Your task to perform on an android device: Clear the cart on amazon.com. Search for "razer deathadder" on amazon.com, select the first entry, add it to the cart, then select checkout. Image 0: 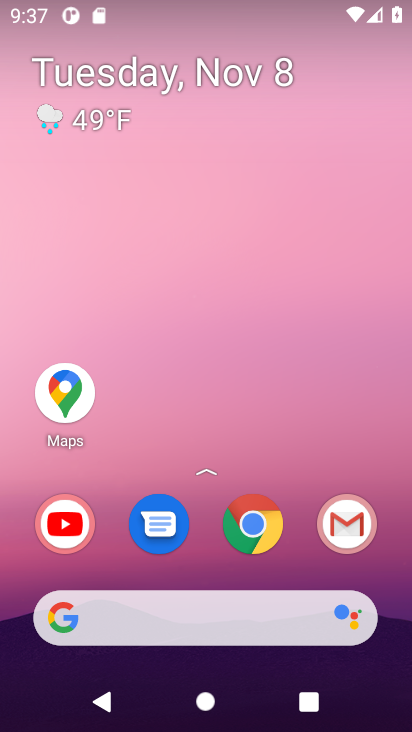
Step 0: click (258, 526)
Your task to perform on an android device: Clear the cart on amazon.com. Search for "razer deathadder" on amazon.com, select the first entry, add it to the cart, then select checkout. Image 1: 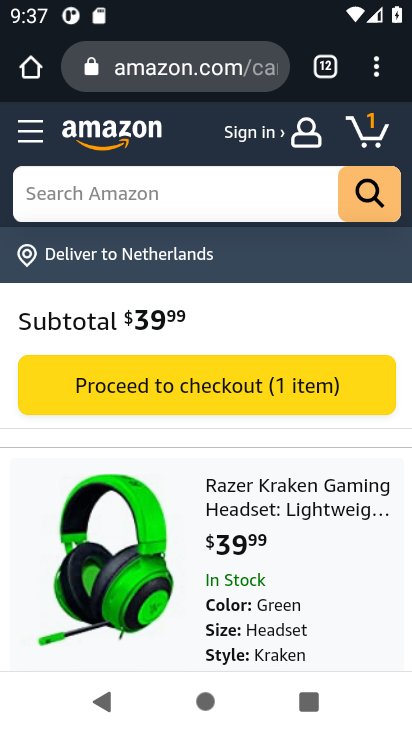
Step 1: click (368, 146)
Your task to perform on an android device: Clear the cart on amazon.com. Search for "razer deathadder" on amazon.com, select the first entry, add it to the cart, then select checkout. Image 2: 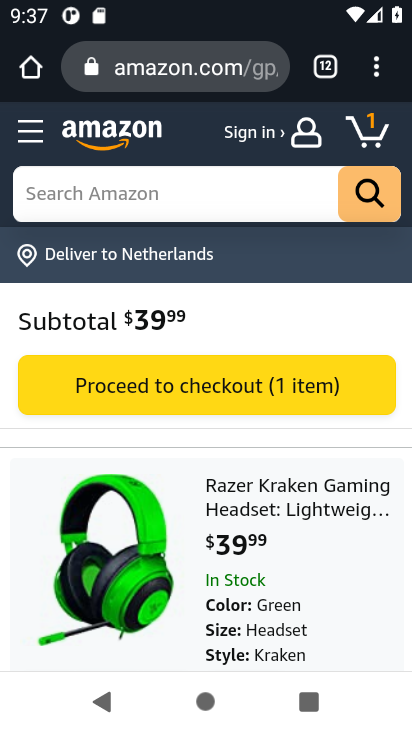
Step 2: drag from (228, 563) to (227, 211)
Your task to perform on an android device: Clear the cart on amazon.com. Search for "razer deathadder" on amazon.com, select the first entry, add it to the cart, then select checkout. Image 3: 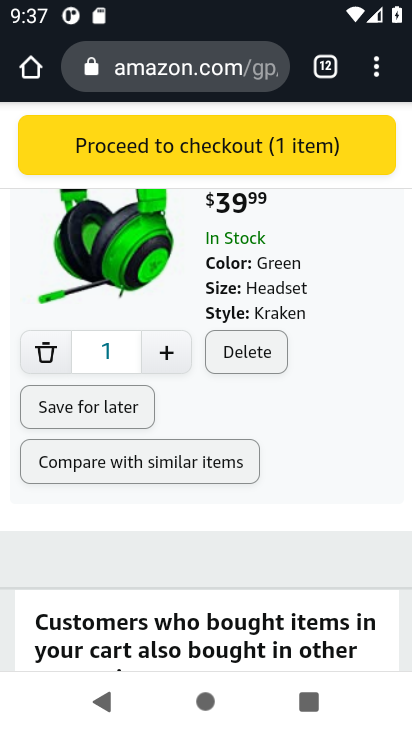
Step 3: click (247, 357)
Your task to perform on an android device: Clear the cart on amazon.com. Search for "razer deathadder" on amazon.com, select the first entry, add it to the cart, then select checkout. Image 4: 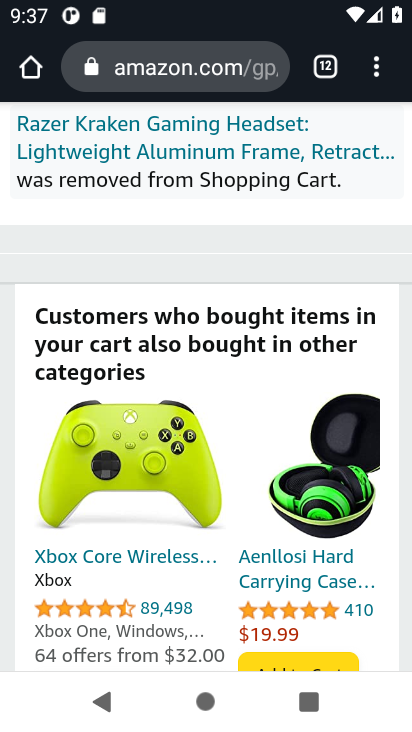
Step 4: drag from (248, 294) to (212, 632)
Your task to perform on an android device: Clear the cart on amazon.com. Search for "razer deathadder" on amazon.com, select the first entry, add it to the cart, then select checkout. Image 5: 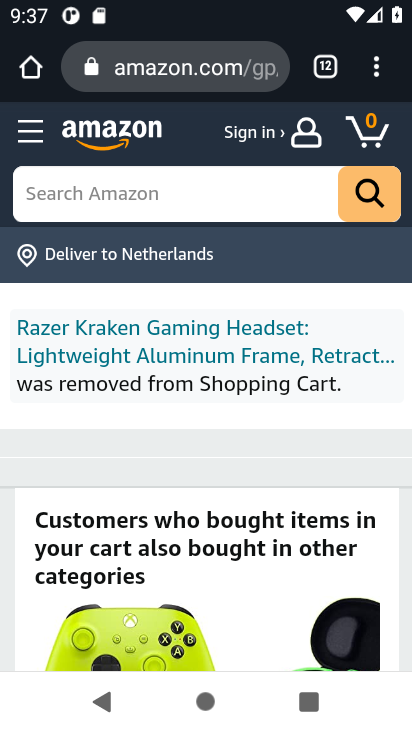
Step 5: click (119, 196)
Your task to perform on an android device: Clear the cart on amazon.com. Search for "razer deathadder" on amazon.com, select the first entry, add it to the cart, then select checkout. Image 6: 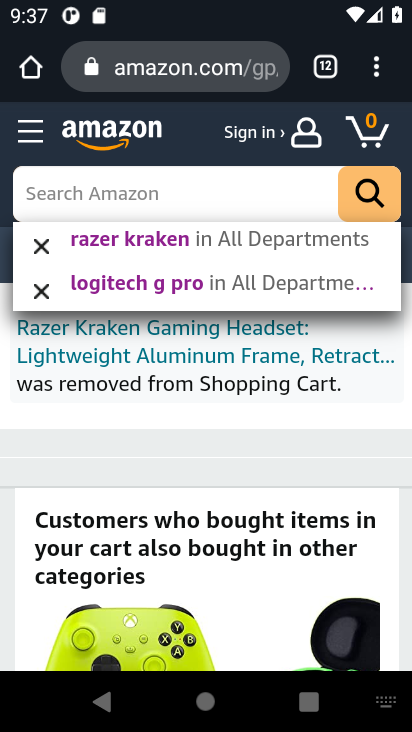
Step 6: type "razer deathadder"
Your task to perform on an android device: Clear the cart on amazon.com. Search for "razer deathadder" on amazon.com, select the first entry, add it to the cart, then select checkout. Image 7: 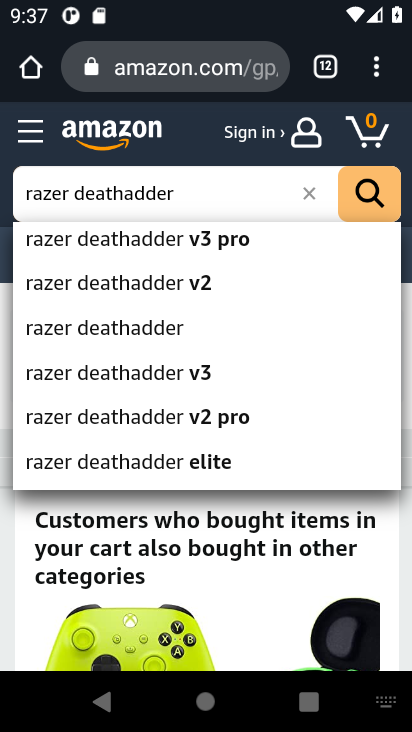
Step 7: click (136, 330)
Your task to perform on an android device: Clear the cart on amazon.com. Search for "razer deathadder" on amazon.com, select the first entry, add it to the cart, then select checkout. Image 8: 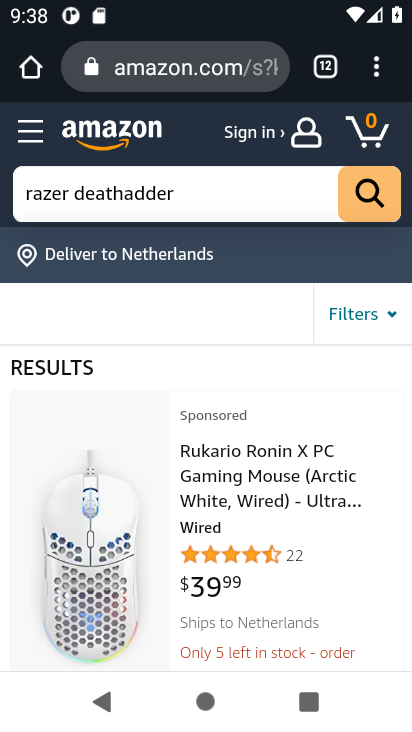
Step 8: task complete